Your task to perform on an android device: What's on my calendar today? Image 0: 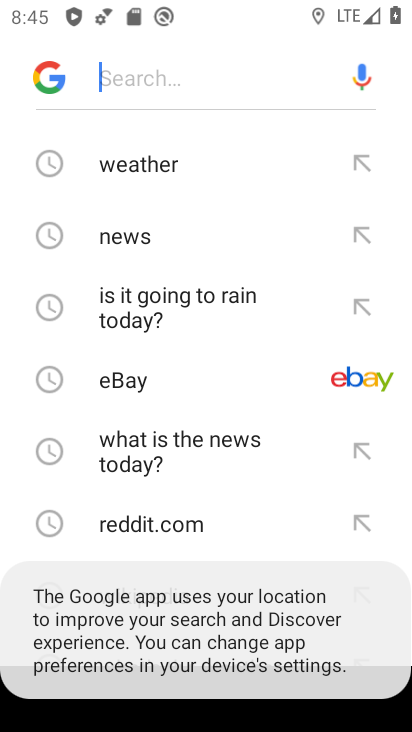
Step 0: press home button
Your task to perform on an android device: What's on my calendar today? Image 1: 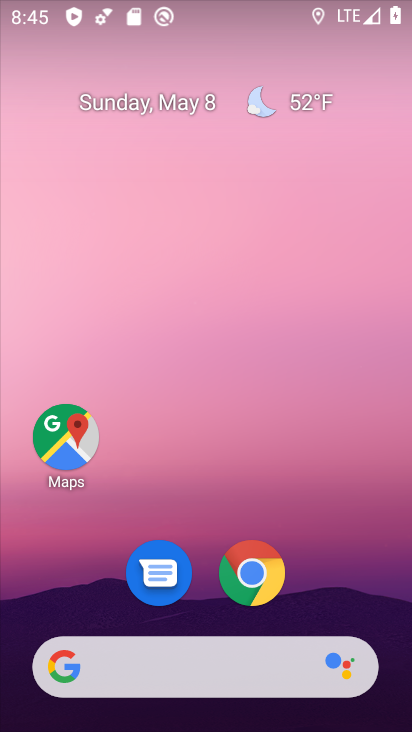
Step 1: drag from (209, 720) to (211, 176)
Your task to perform on an android device: What's on my calendar today? Image 2: 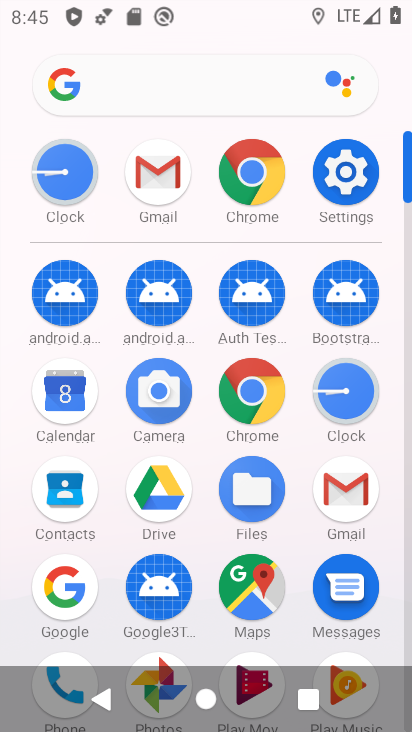
Step 2: click (44, 395)
Your task to perform on an android device: What's on my calendar today? Image 3: 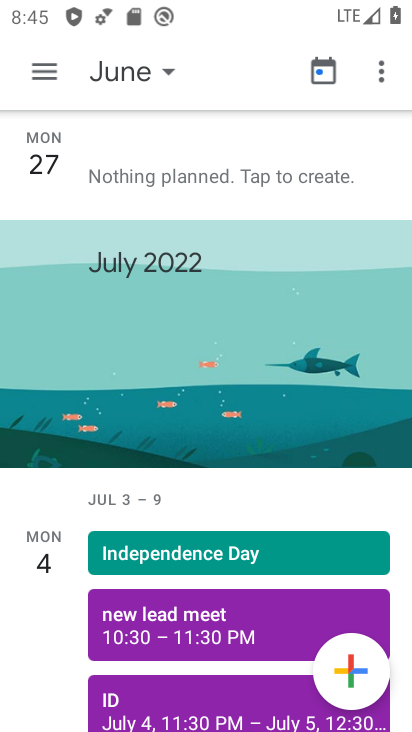
Step 3: click (124, 62)
Your task to perform on an android device: What's on my calendar today? Image 4: 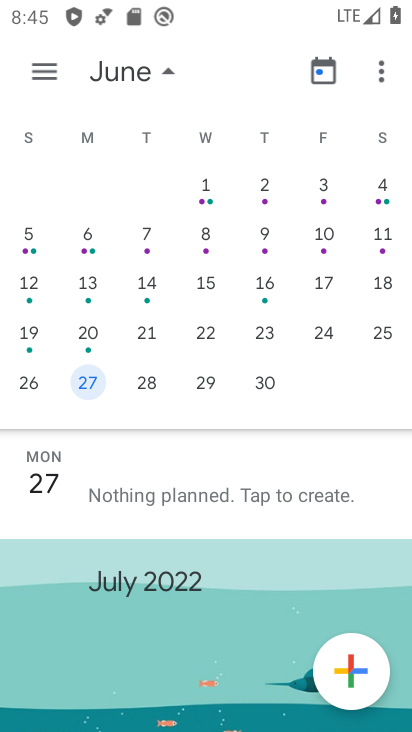
Step 4: drag from (54, 317) to (412, 298)
Your task to perform on an android device: What's on my calendar today? Image 5: 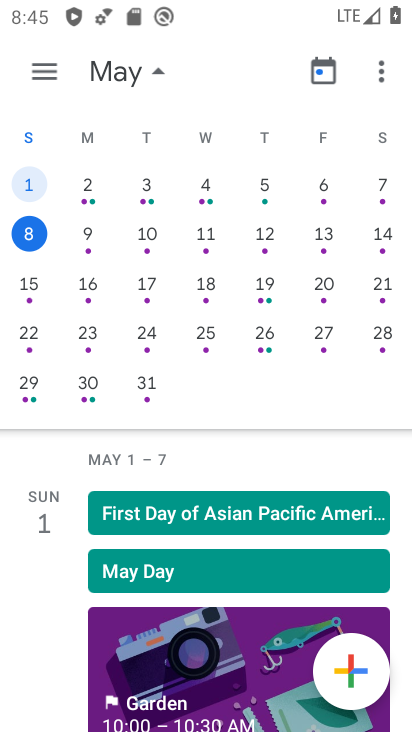
Step 5: click (34, 230)
Your task to perform on an android device: What's on my calendar today? Image 6: 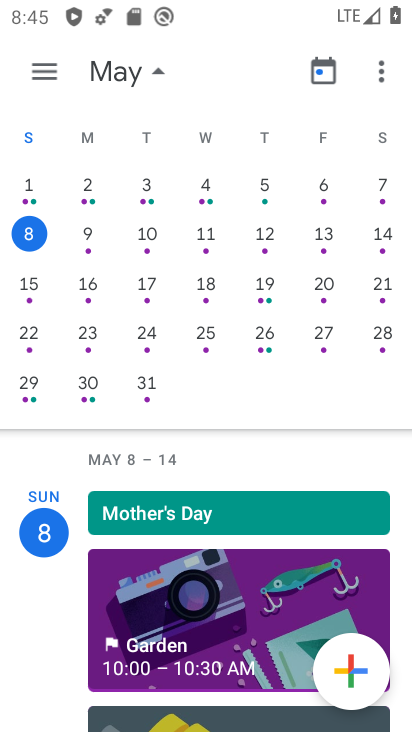
Step 6: drag from (223, 463) to (219, 404)
Your task to perform on an android device: What's on my calendar today? Image 7: 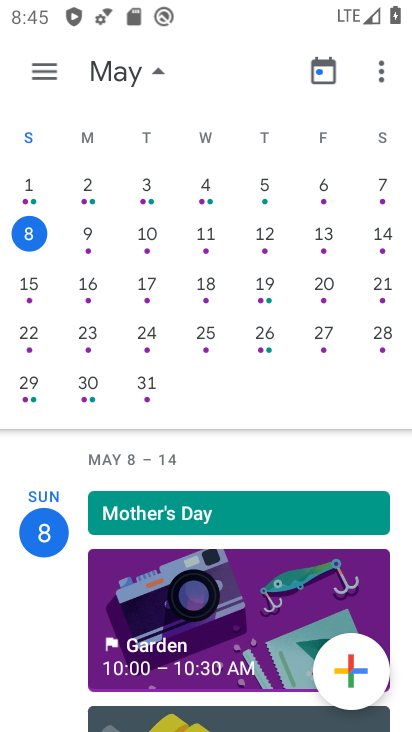
Step 7: click (154, 66)
Your task to perform on an android device: What's on my calendar today? Image 8: 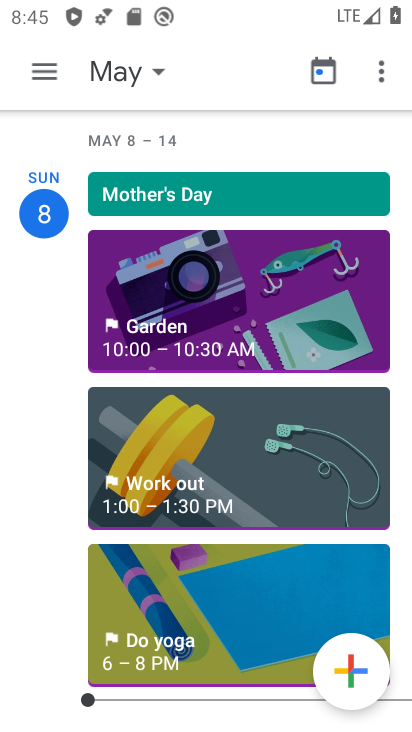
Step 8: task complete